Your task to perform on an android device: set an alarm Image 0: 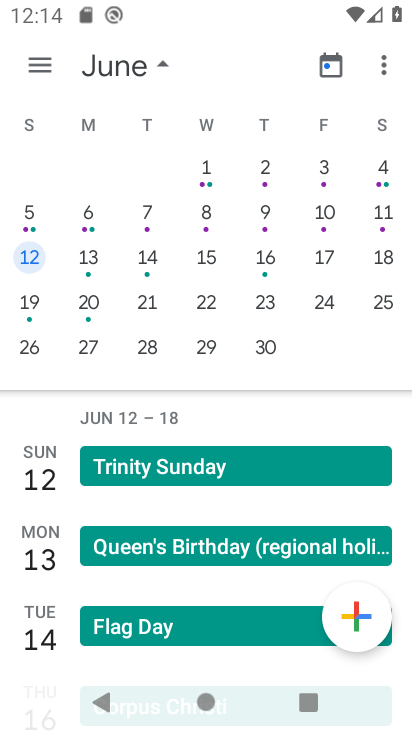
Step 0: press home button
Your task to perform on an android device: set an alarm Image 1: 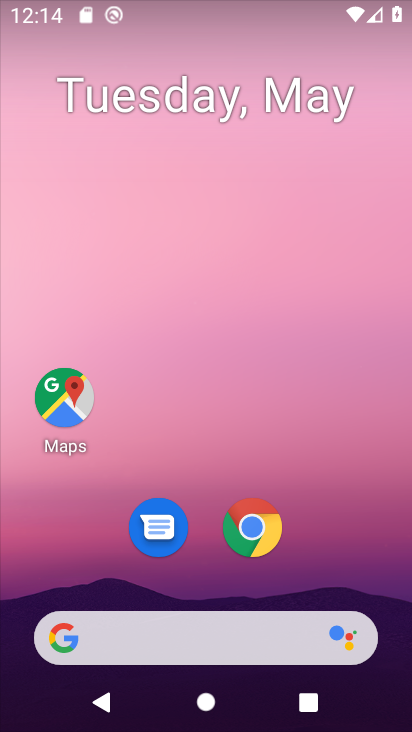
Step 1: drag from (238, 697) to (276, 13)
Your task to perform on an android device: set an alarm Image 2: 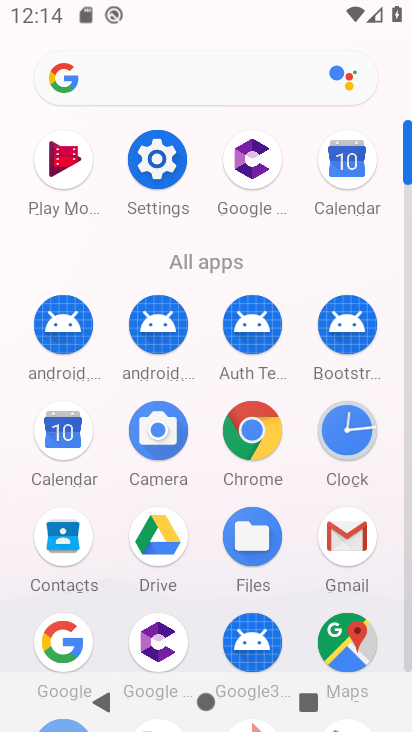
Step 2: click (344, 437)
Your task to perform on an android device: set an alarm Image 3: 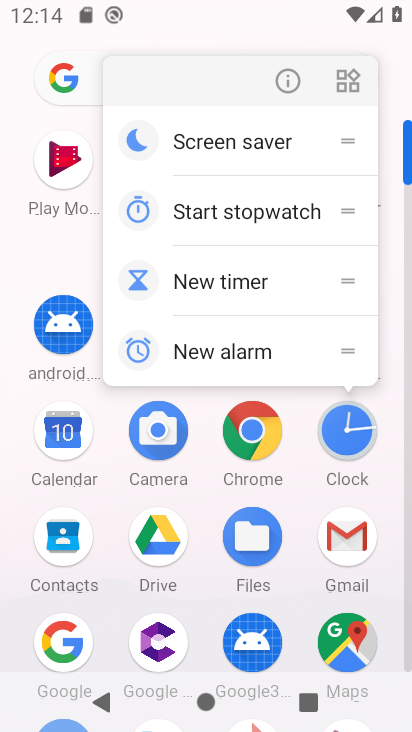
Step 3: click (360, 437)
Your task to perform on an android device: set an alarm Image 4: 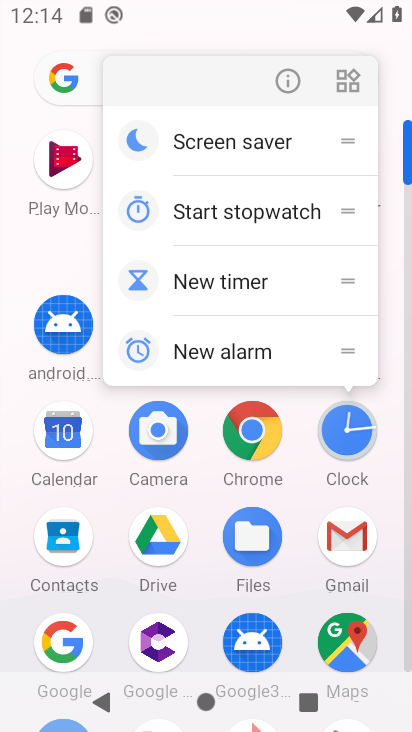
Step 4: click (361, 437)
Your task to perform on an android device: set an alarm Image 5: 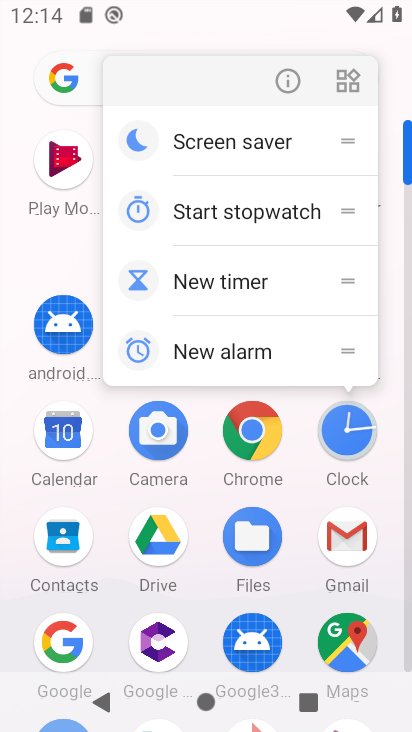
Step 5: click (361, 437)
Your task to perform on an android device: set an alarm Image 6: 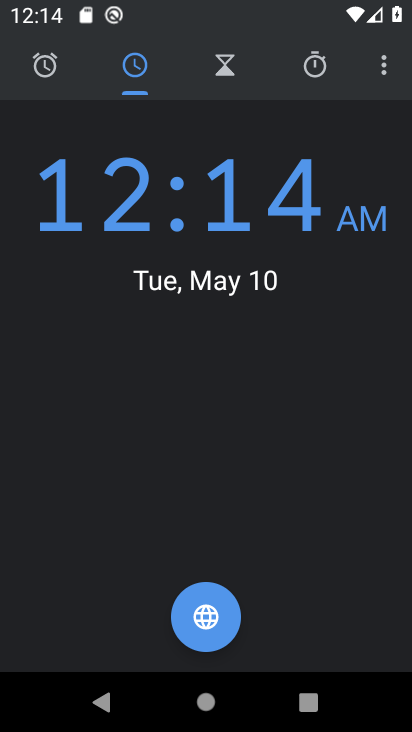
Step 6: click (43, 63)
Your task to perform on an android device: set an alarm Image 7: 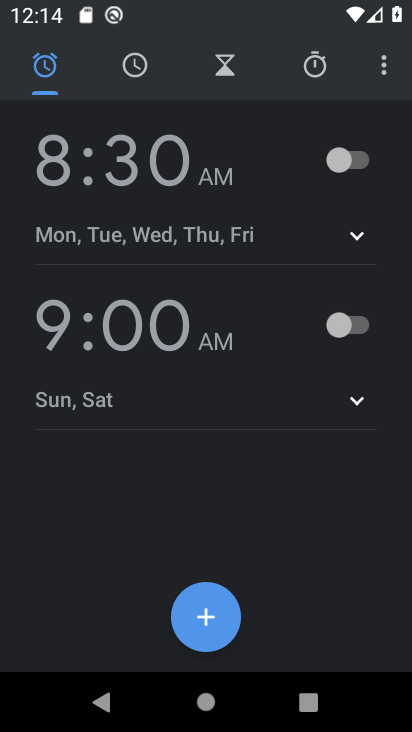
Step 7: click (223, 603)
Your task to perform on an android device: set an alarm Image 8: 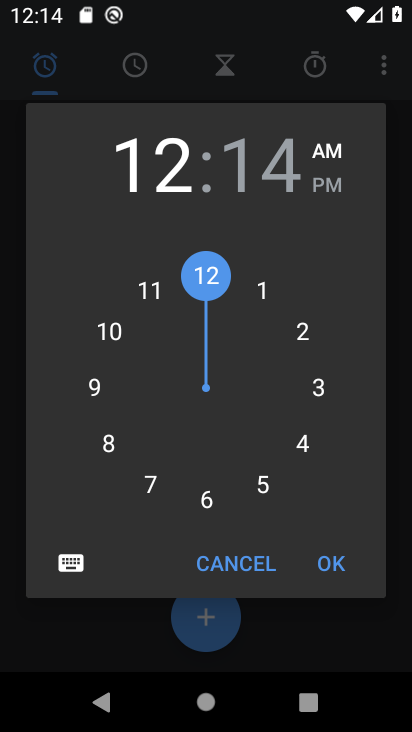
Step 8: click (346, 572)
Your task to perform on an android device: set an alarm Image 9: 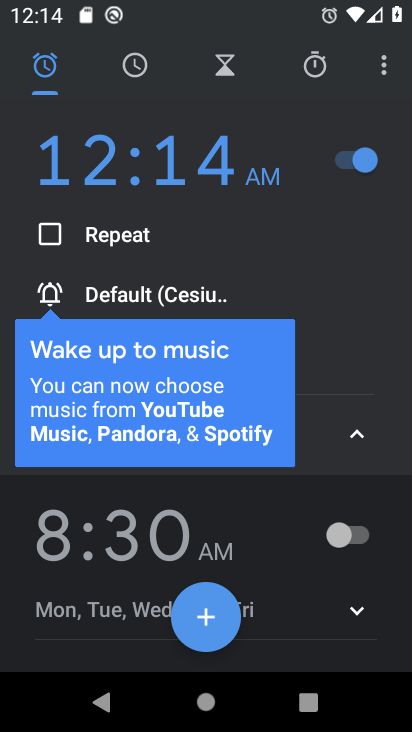
Step 9: task complete